Your task to perform on an android device: Open battery settings Image 0: 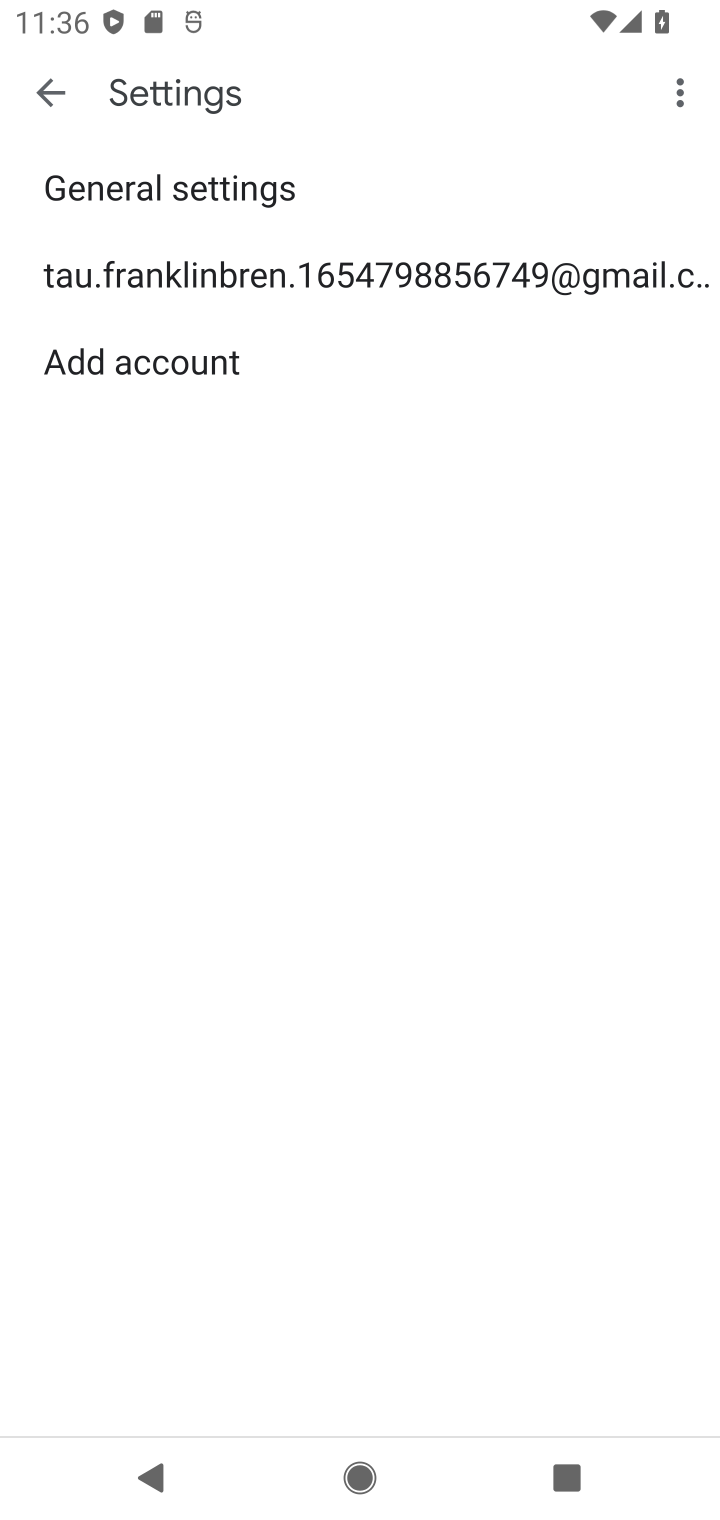
Step 0: press home button
Your task to perform on an android device: Open battery settings Image 1: 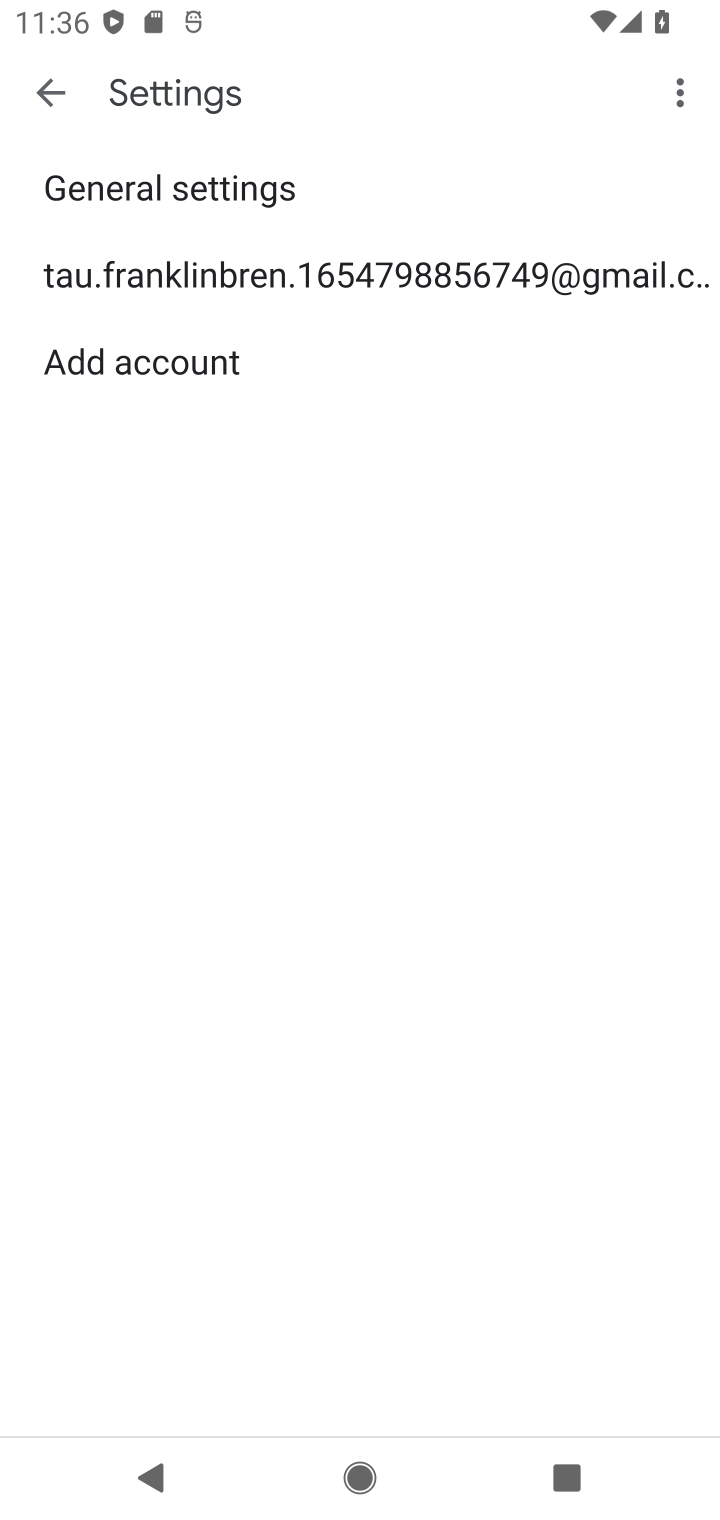
Step 1: press home button
Your task to perform on an android device: Open battery settings Image 2: 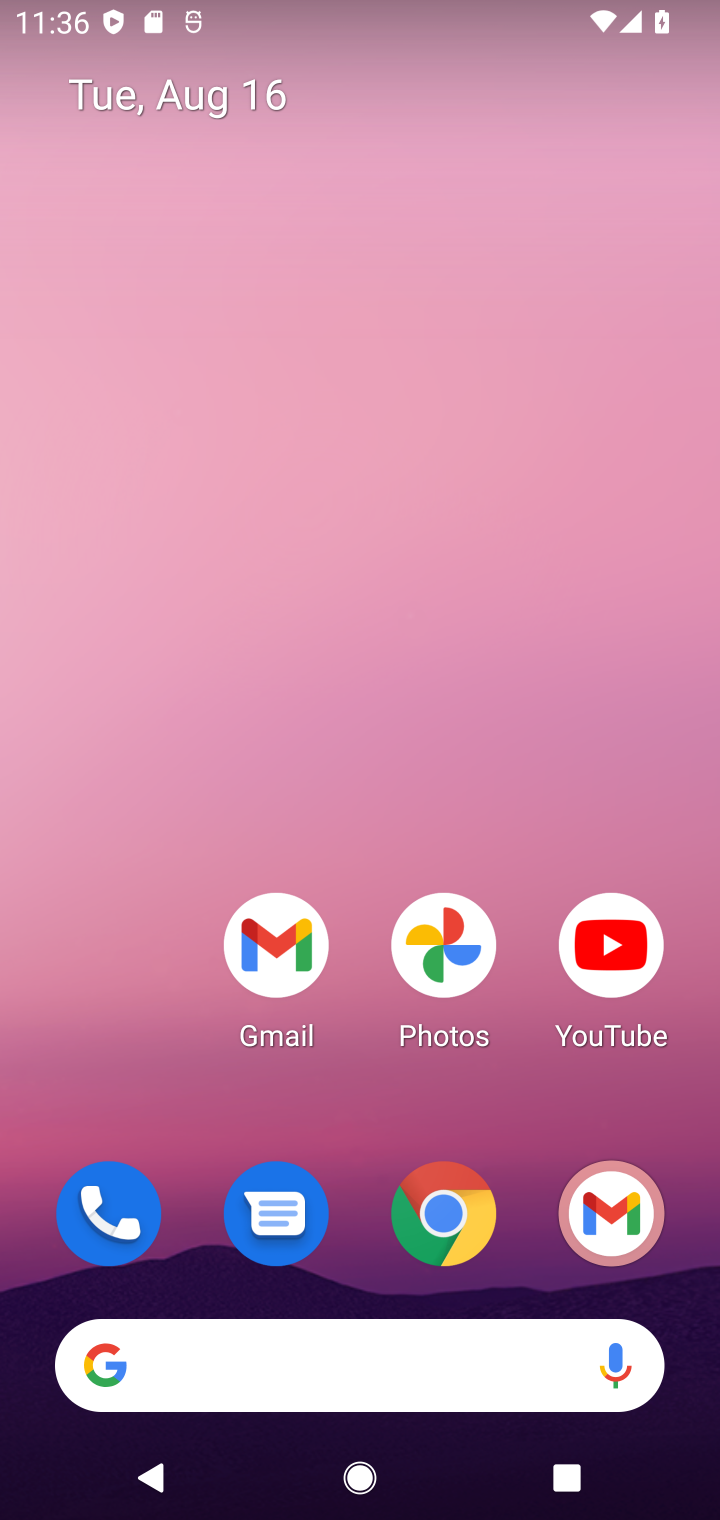
Step 2: drag from (343, 1105) to (574, 151)
Your task to perform on an android device: Open battery settings Image 3: 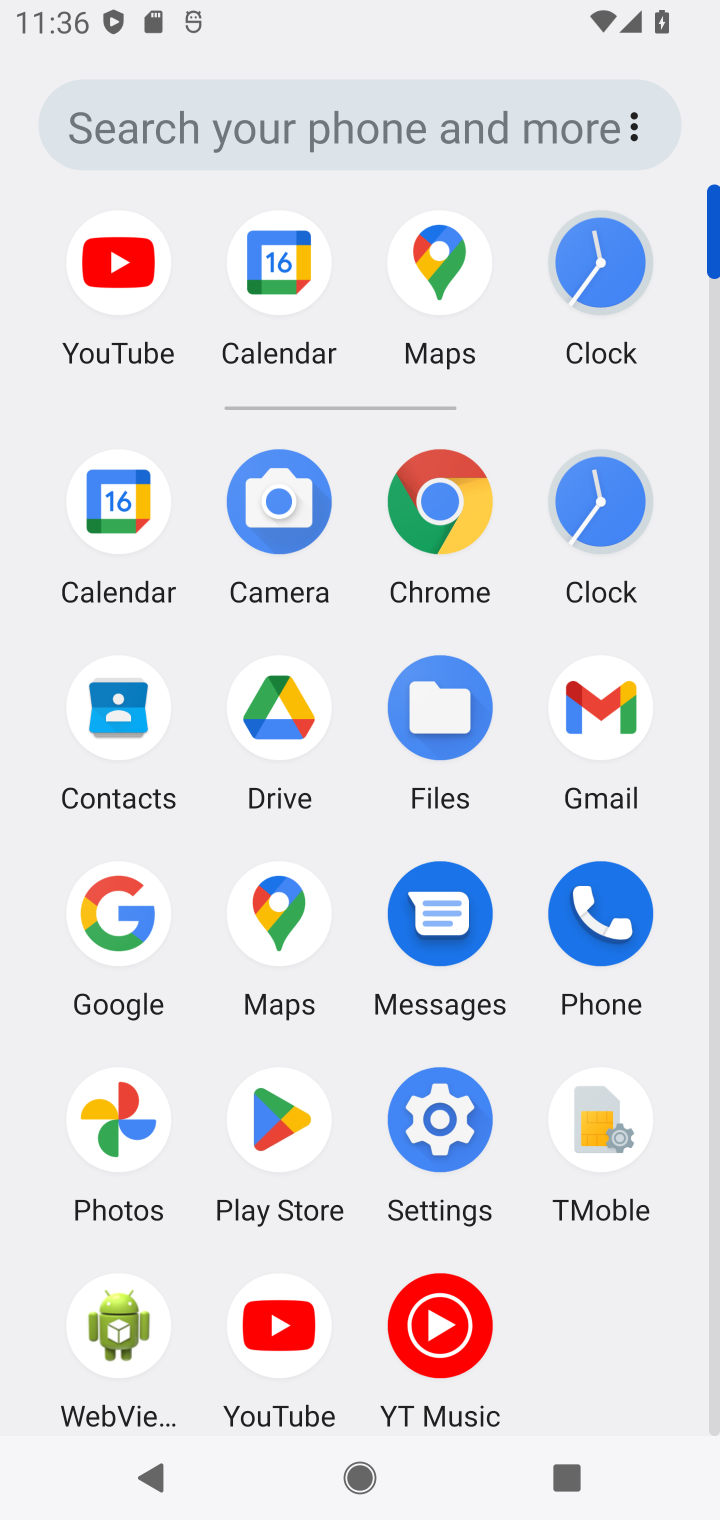
Step 3: click (424, 1138)
Your task to perform on an android device: Open battery settings Image 4: 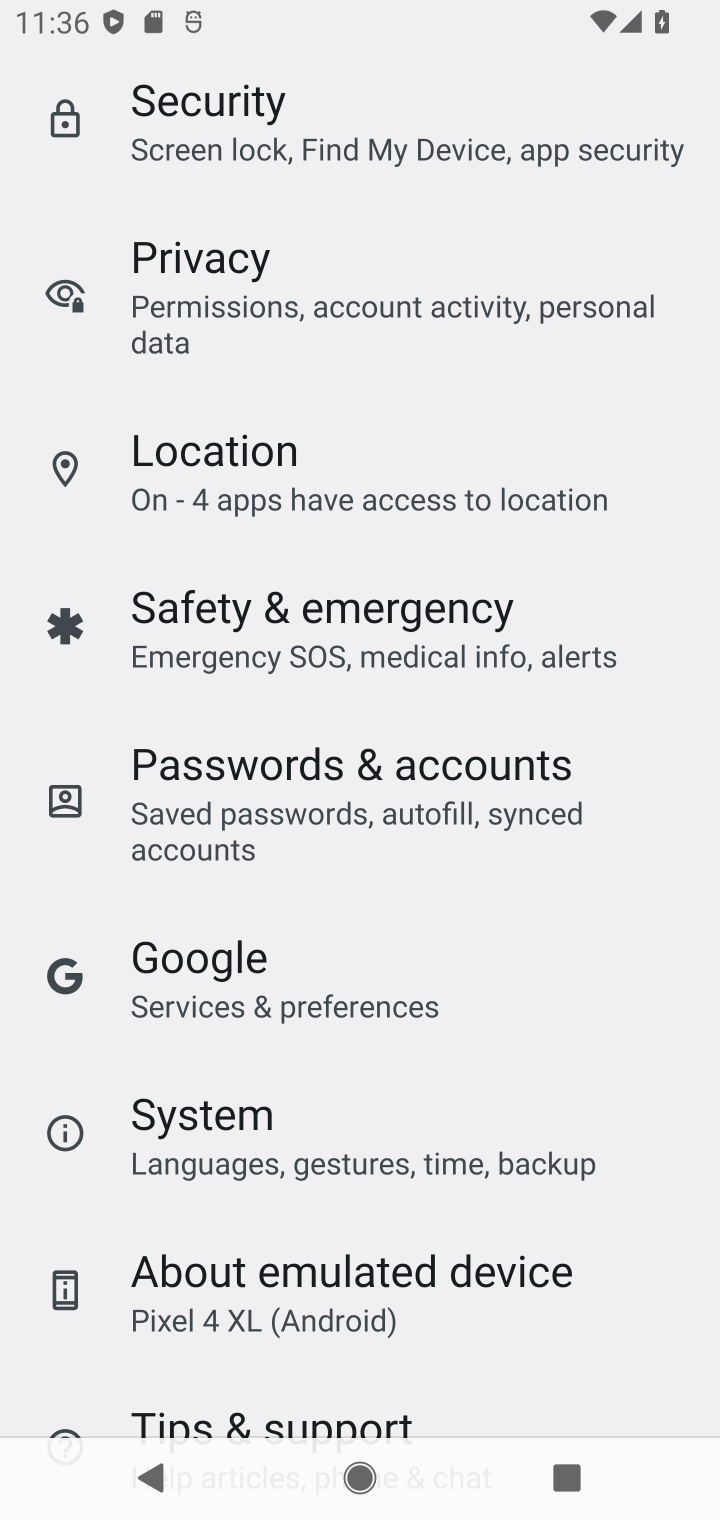
Step 4: drag from (545, 413) to (383, 1272)
Your task to perform on an android device: Open battery settings Image 5: 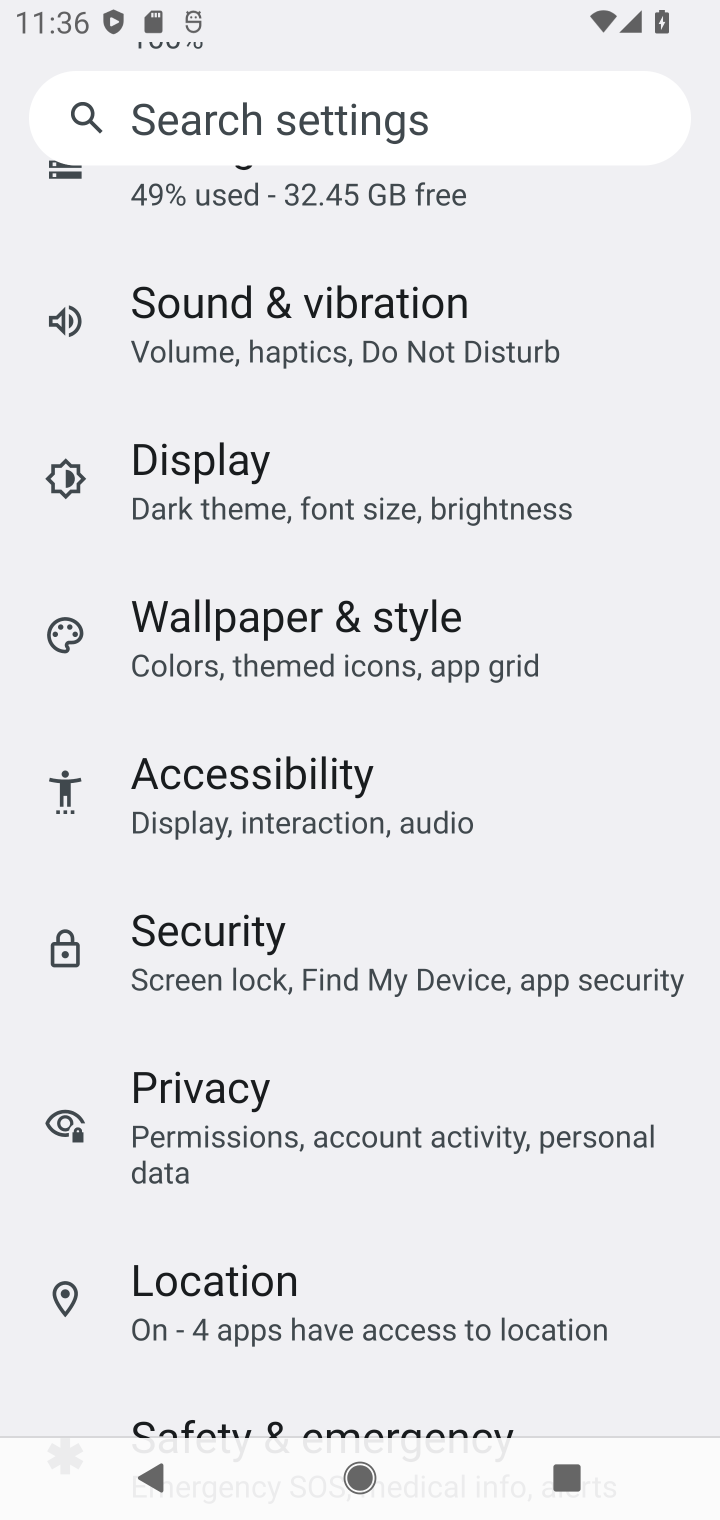
Step 5: drag from (497, 492) to (361, 1168)
Your task to perform on an android device: Open battery settings Image 6: 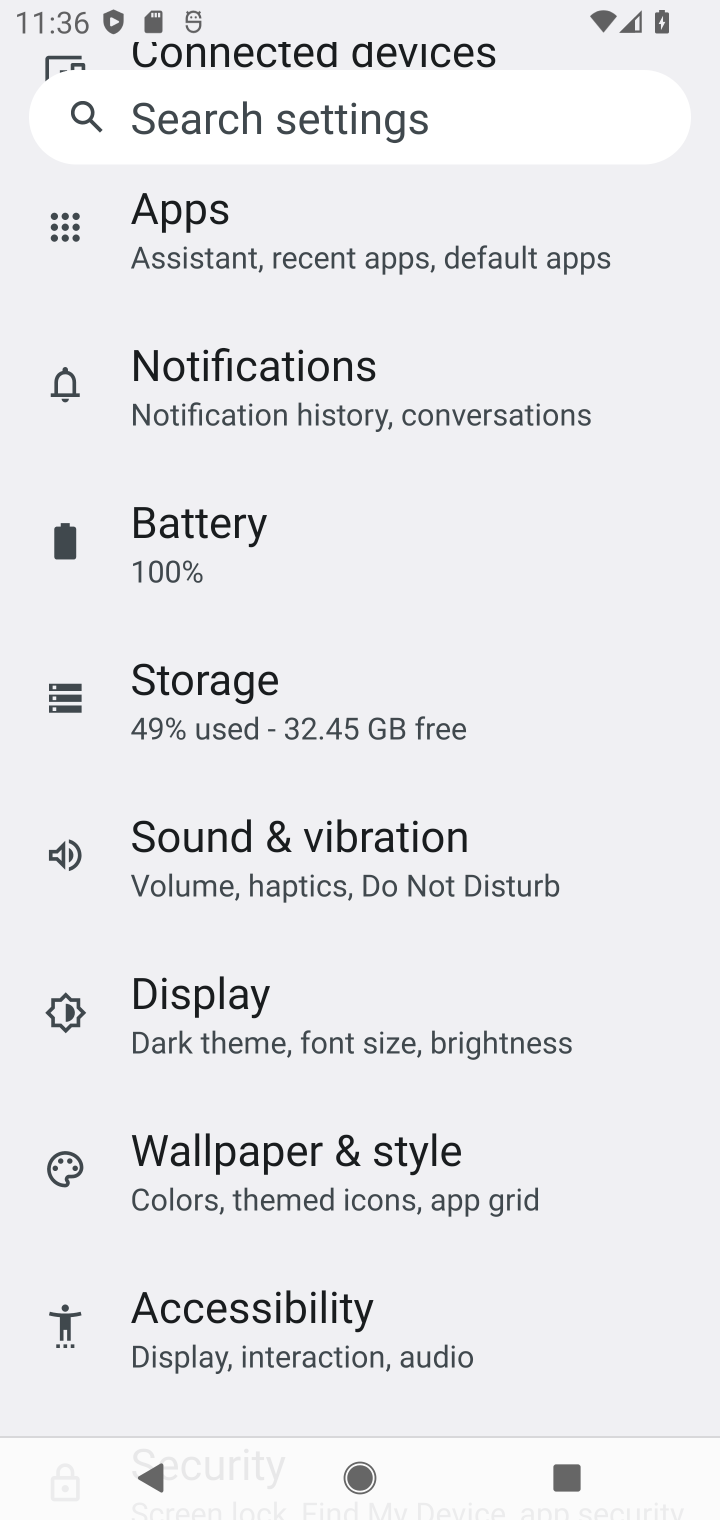
Step 6: click (205, 562)
Your task to perform on an android device: Open battery settings Image 7: 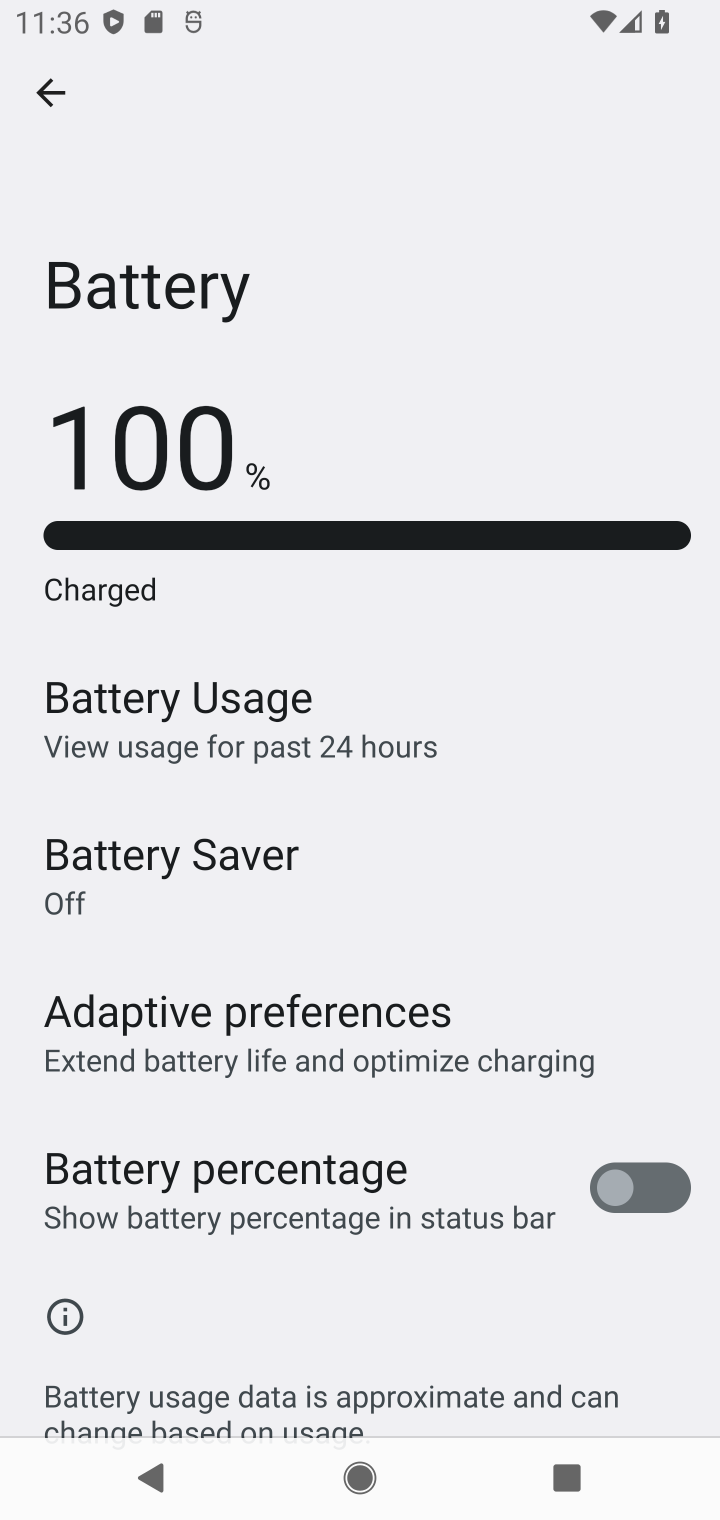
Step 7: task complete